Your task to perform on an android device: What's the weather? Image 0: 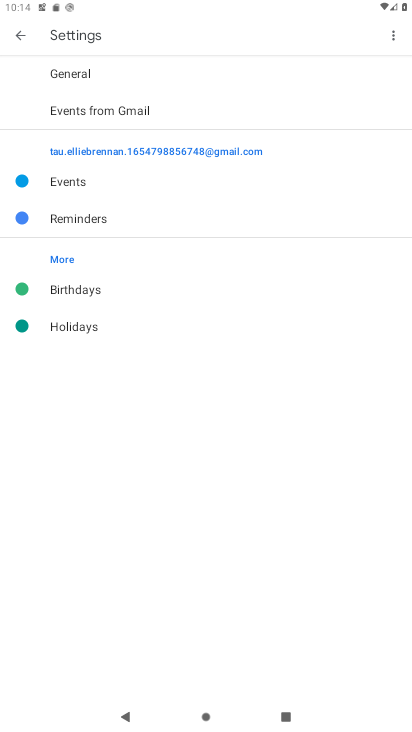
Step 0: press home button
Your task to perform on an android device: What's the weather? Image 1: 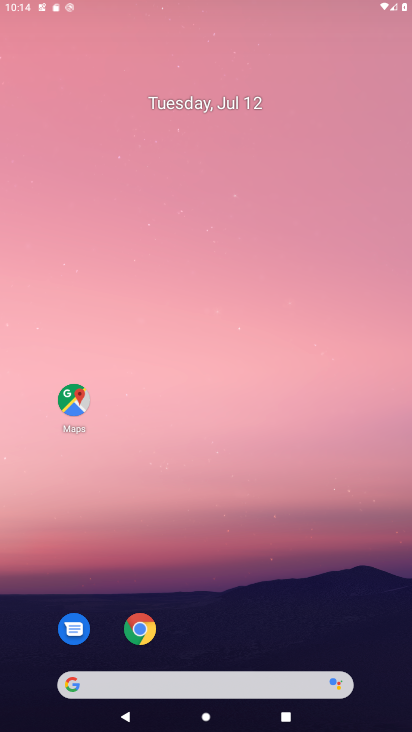
Step 1: drag from (272, 646) to (264, 41)
Your task to perform on an android device: What's the weather? Image 2: 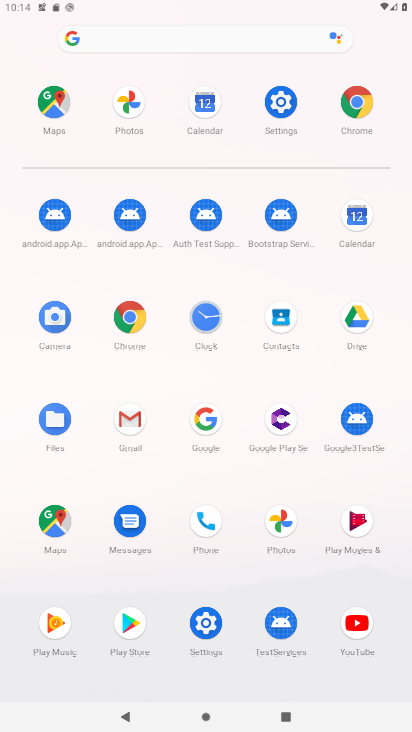
Step 2: click (128, 314)
Your task to perform on an android device: What's the weather? Image 3: 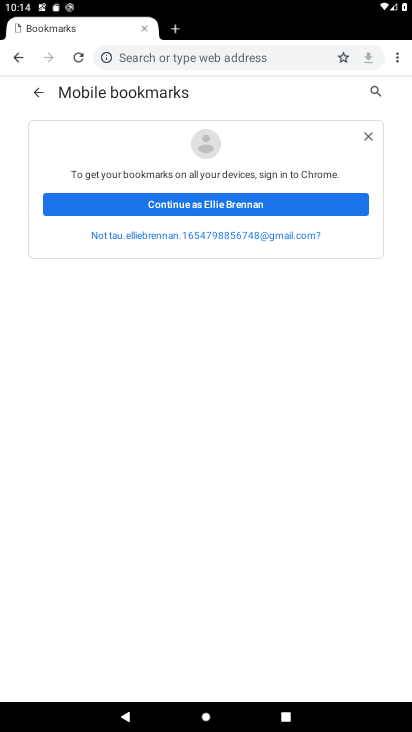
Step 3: click (183, 55)
Your task to perform on an android device: What's the weather? Image 4: 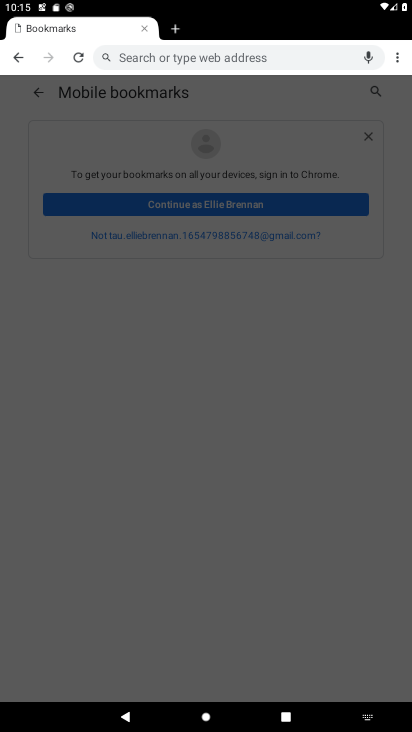
Step 4: type "whats the weather"
Your task to perform on an android device: What's the weather? Image 5: 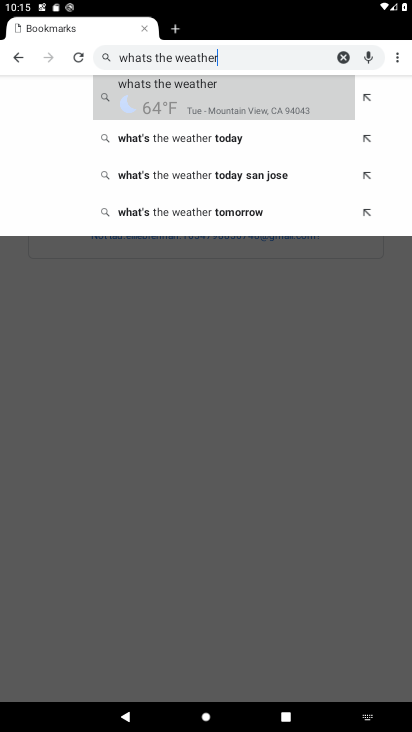
Step 5: click (225, 106)
Your task to perform on an android device: What's the weather? Image 6: 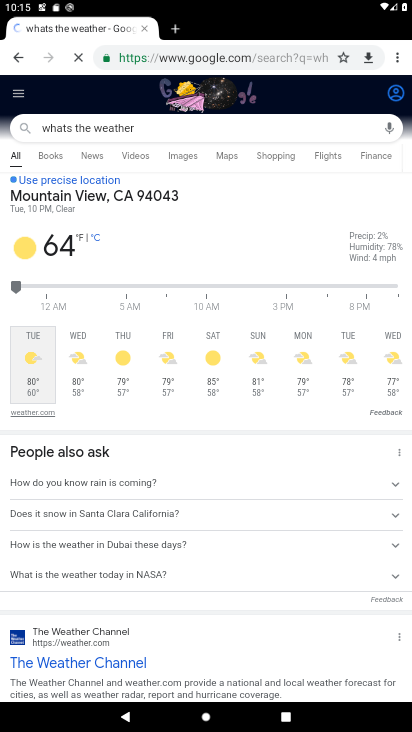
Step 6: task complete